Your task to perform on an android device: open wifi settings Image 0: 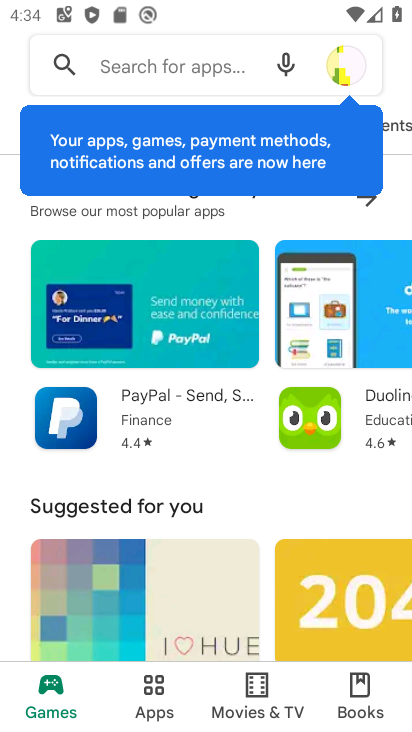
Step 0: press back button
Your task to perform on an android device: open wifi settings Image 1: 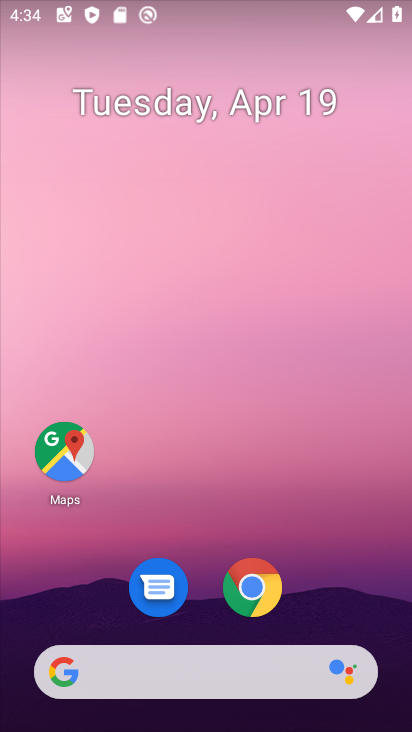
Step 1: drag from (356, 554) to (199, 15)
Your task to perform on an android device: open wifi settings Image 2: 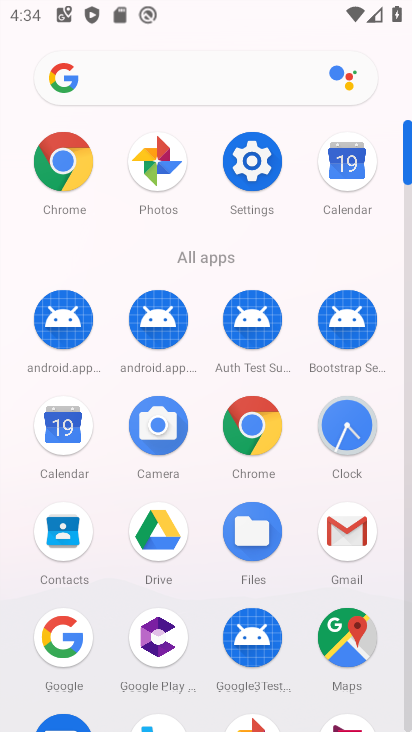
Step 2: drag from (2, 402) to (1, 183)
Your task to perform on an android device: open wifi settings Image 3: 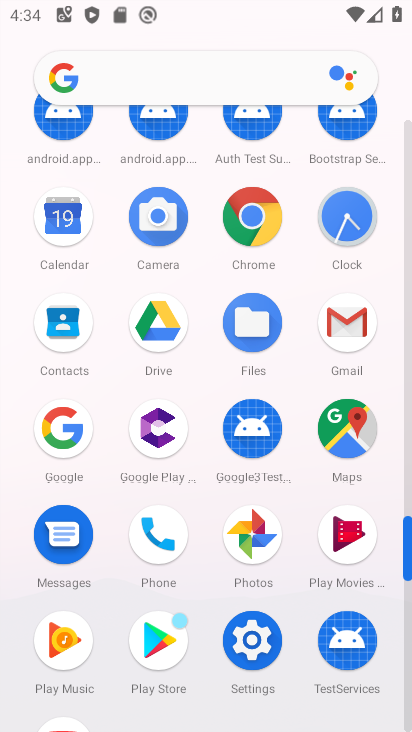
Step 3: drag from (0, 197) to (0, 422)
Your task to perform on an android device: open wifi settings Image 4: 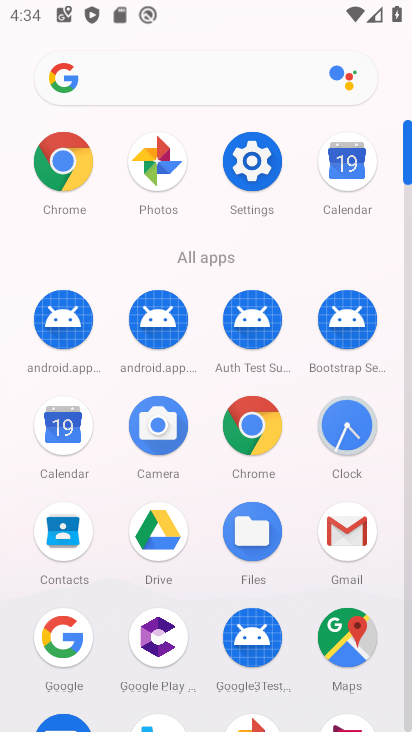
Step 4: click (246, 159)
Your task to perform on an android device: open wifi settings Image 5: 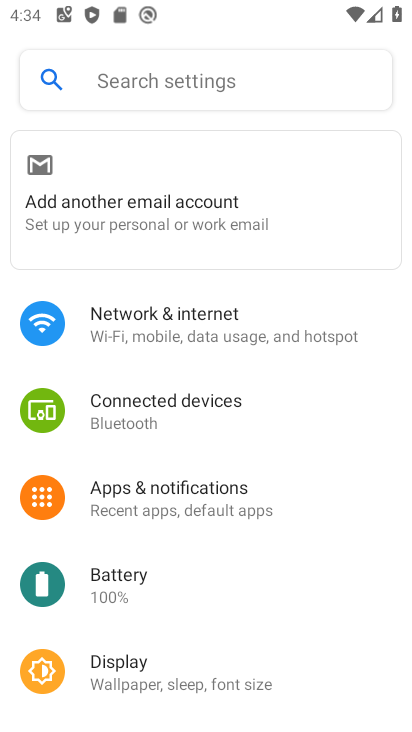
Step 5: click (227, 332)
Your task to perform on an android device: open wifi settings Image 6: 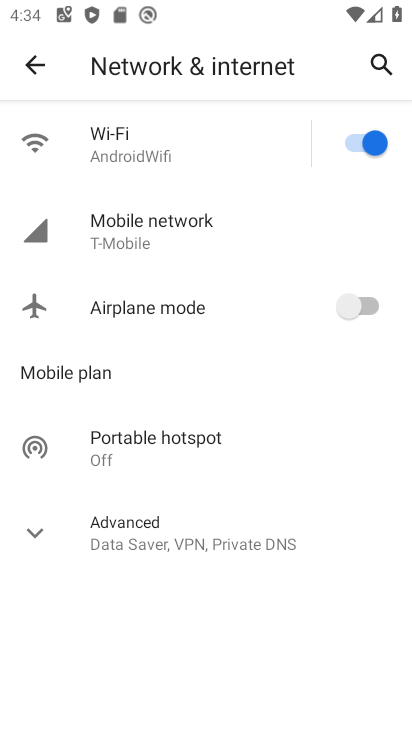
Step 6: click (155, 149)
Your task to perform on an android device: open wifi settings Image 7: 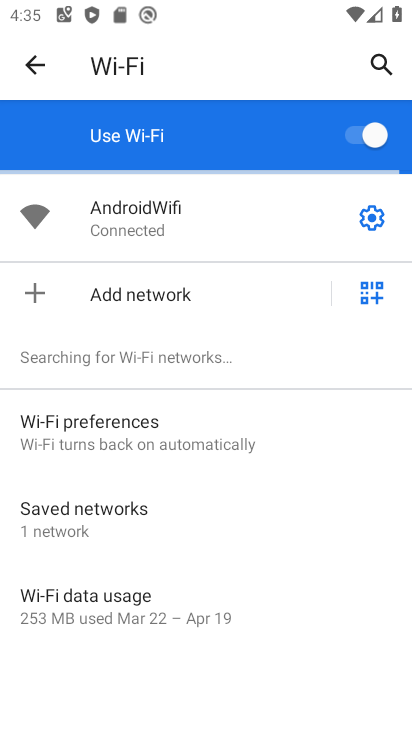
Step 7: task complete